Your task to perform on an android device: clear all cookies in the chrome app Image 0: 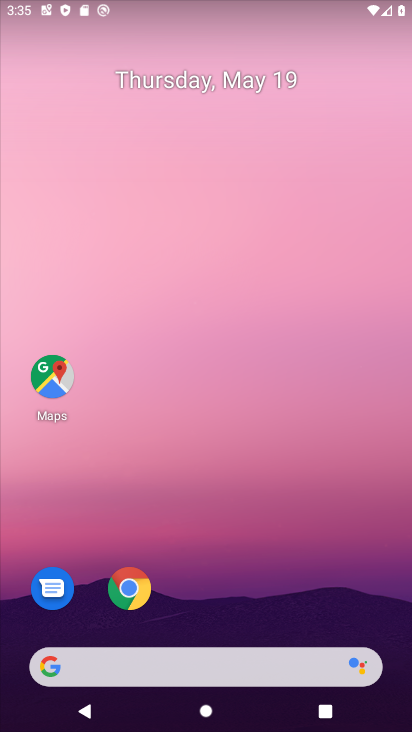
Step 0: click (131, 596)
Your task to perform on an android device: clear all cookies in the chrome app Image 1: 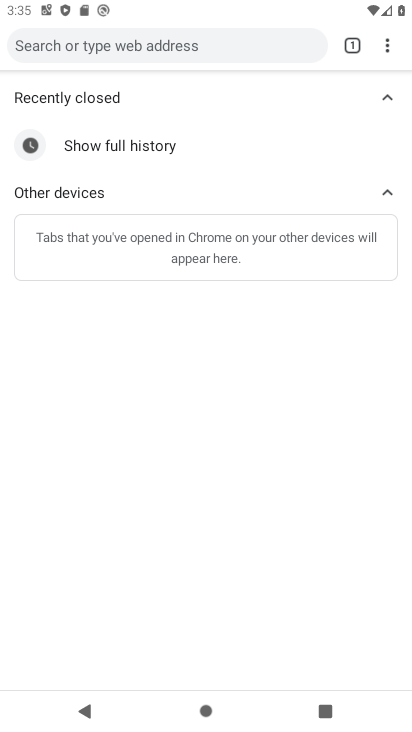
Step 1: click (392, 49)
Your task to perform on an android device: clear all cookies in the chrome app Image 2: 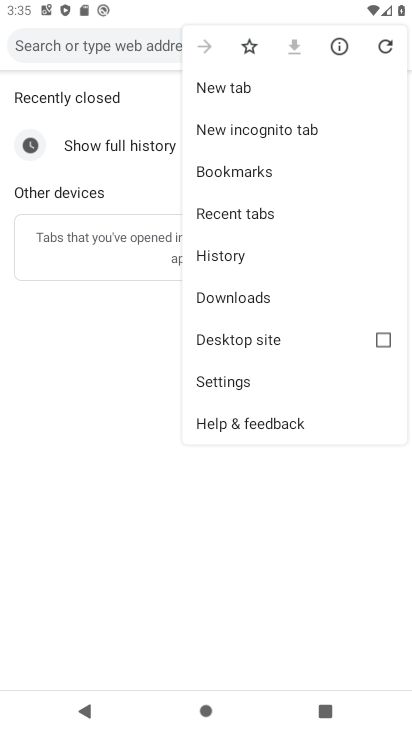
Step 2: click (220, 389)
Your task to perform on an android device: clear all cookies in the chrome app Image 3: 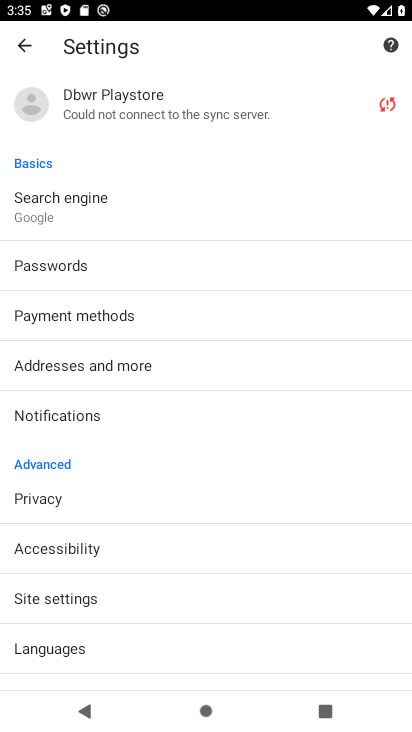
Step 3: drag from (100, 617) to (245, 135)
Your task to perform on an android device: clear all cookies in the chrome app Image 4: 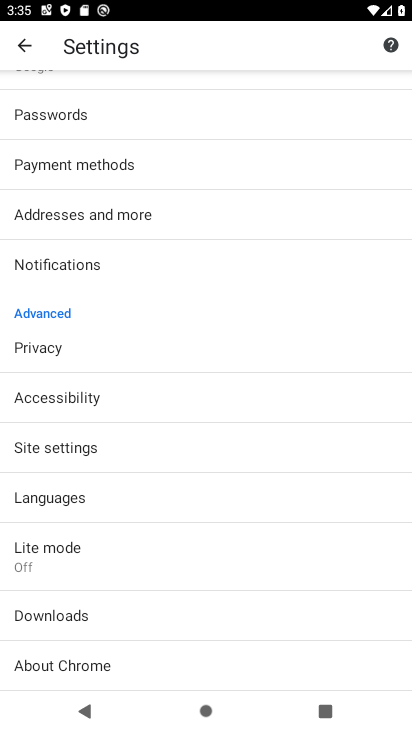
Step 4: drag from (133, 523) to (236, 151)
Your task to perform on an android device: clear all cookies in the chrome app Image 5: 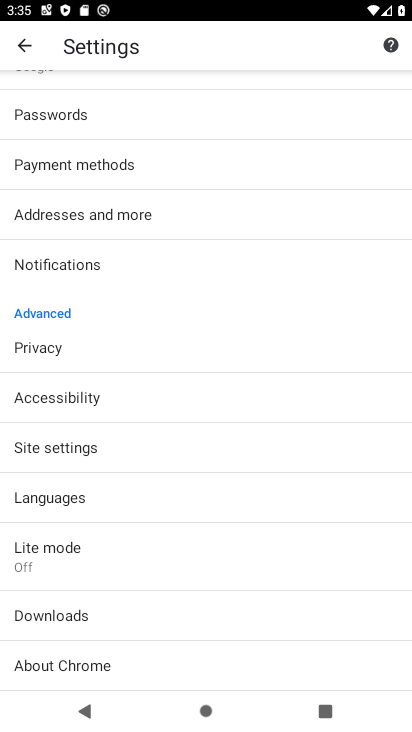
Step 5: drag from (155, 196) to (58, 626)
Your task to perform on an android device: clear all cookies in the chrome app Image 6: 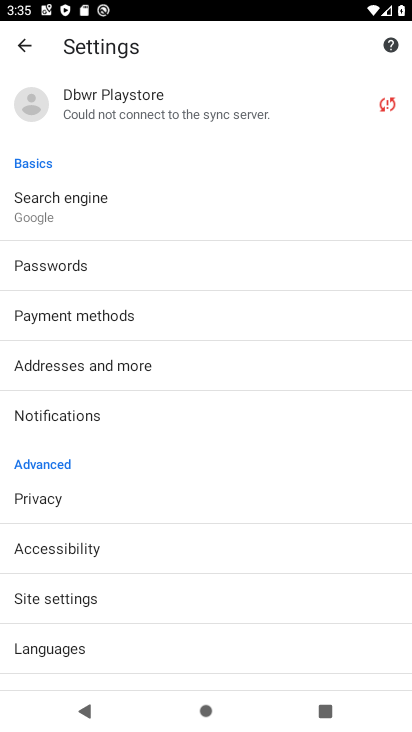
Step 6: click (28, 42)
Your task to perform on an android device: clear all cookies in the chrome app Image 7: 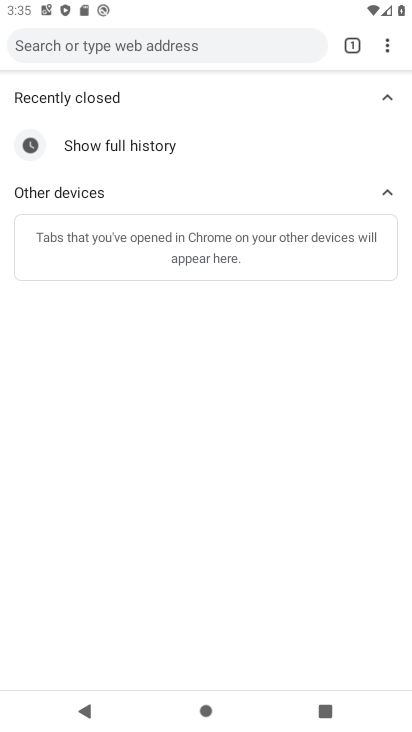
Step 7: click (393, 45)
Your task to perform on an android device: clear all cookies in the chrome app Image 8: 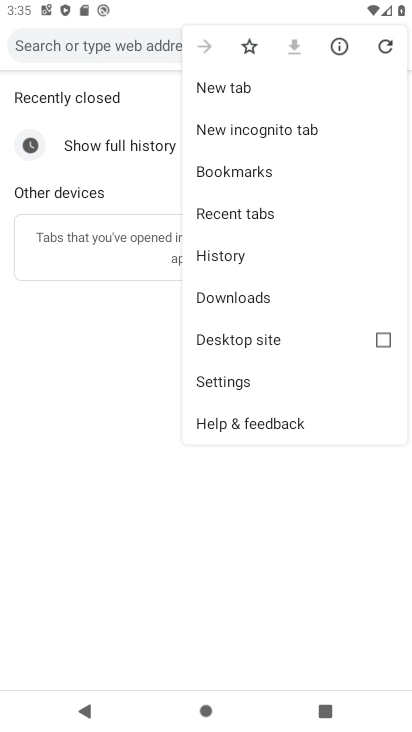
Step 8: click (222, 260)
Your task to perform on an android device: clear all cookies in the chrome app Image 9: 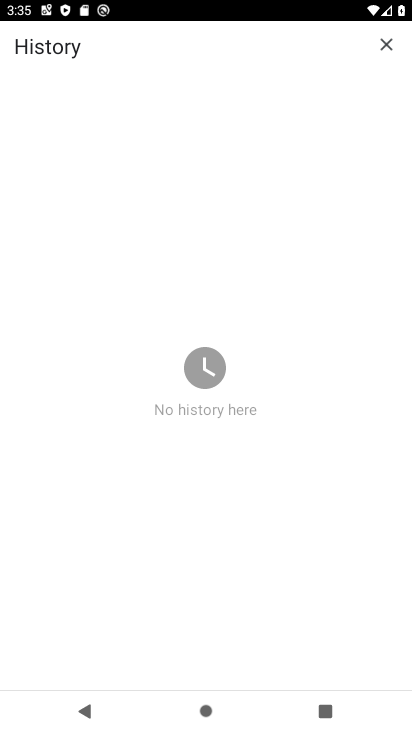
Step 9: task complete